Your task to perform on an android device: open device folders in google photos Image 0: 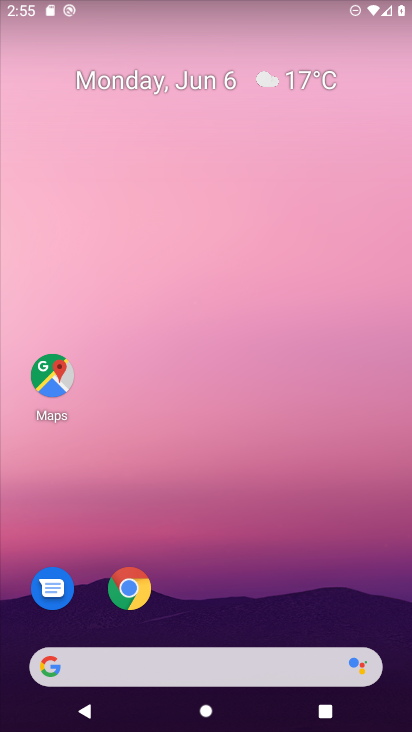
Step 0: drag from (255, 691) to (165, 12)
Your task to perform on an android device: open device folders in google photos Image 1: 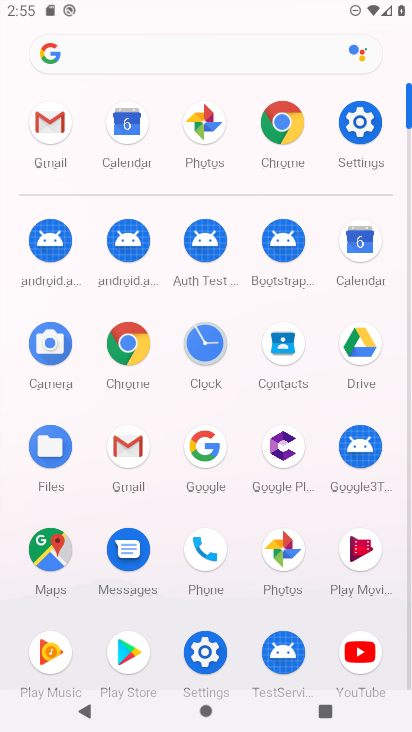
Step 1: click (278, 553)
Your task to perform on an android device: open device folders in google photos Image 2: 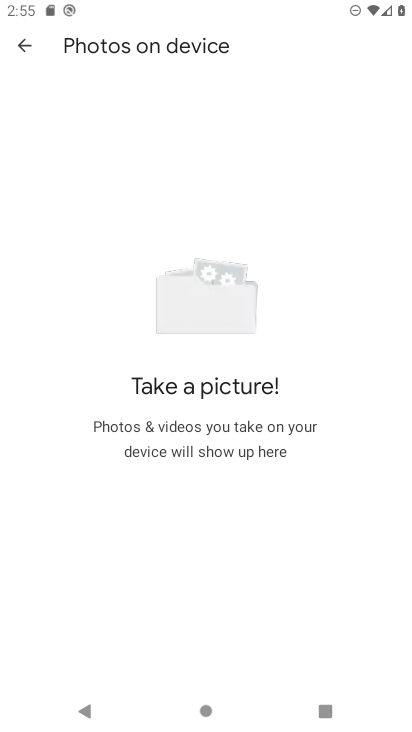
Step 2: click (26, 43)
Your task to perform on an android device: open device folders in google photos Image 3: 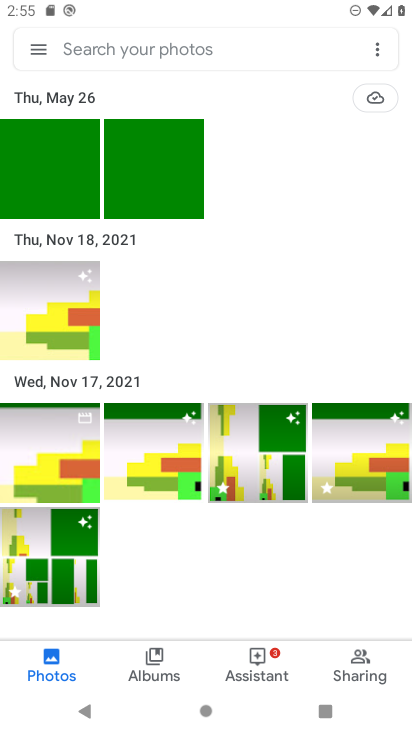
Step 3: click (31, 46)
Your task to perform on an android device: open device folders in google photos Image 4: 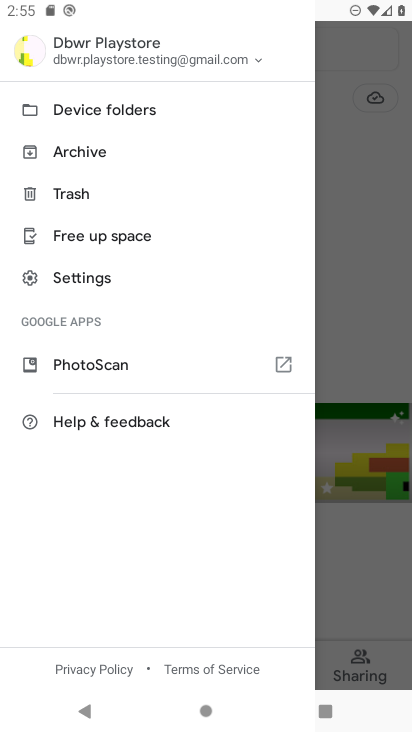
Step 4: click (102, 118)
Your task to perform on an android device: open device folders in google photos Image 5: 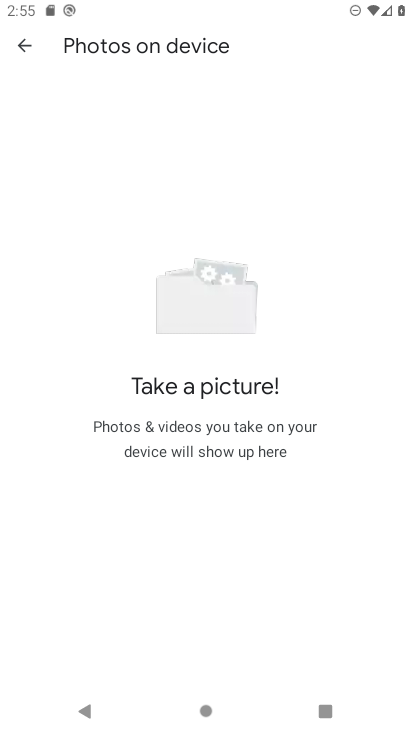
Step 5: task complete